Your task to perform on an android device: turn off location history Image 0: 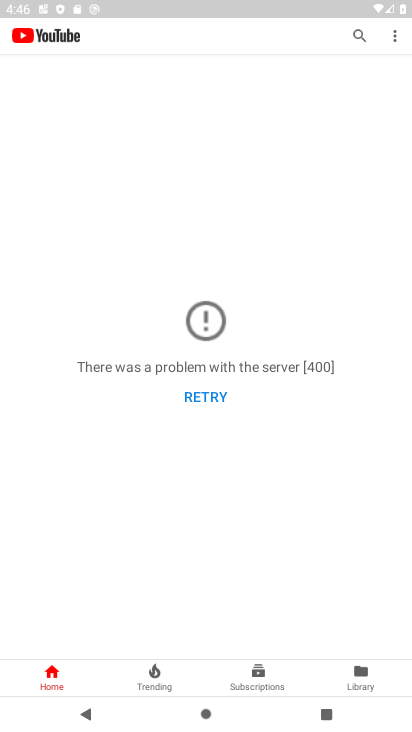
Step 0: press home button
Your task to perform on an android device: turn off location history Image 1: 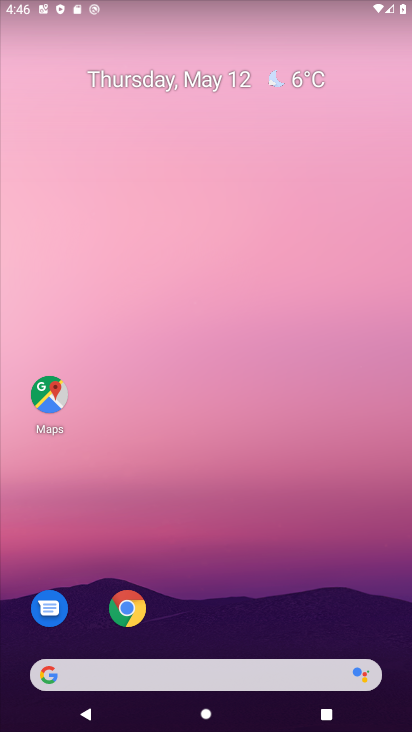
Step 1: drag from (260, 563) to (264, 78)
Your task to perform on an android device: turn off location history Image 2: 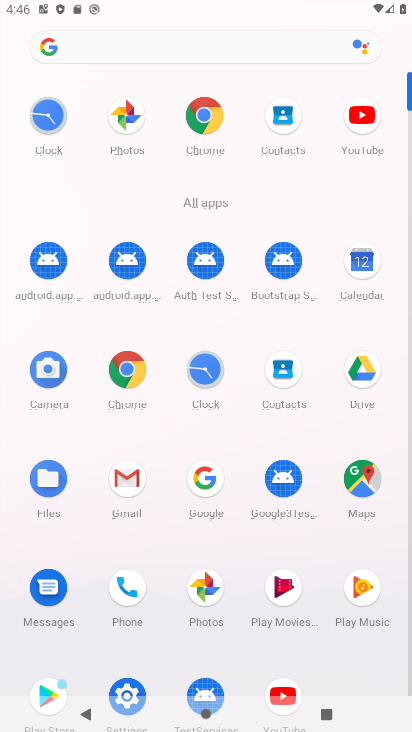
Step 2: click (358, 486)
Your task to perform on an android device: turn off location history Image 3: 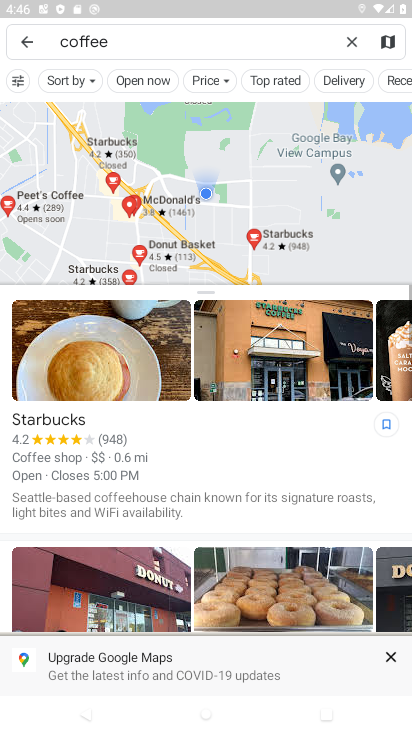
Step 3: click (23, 38)
Your task to perform on an android device: turn off location history Image 4: 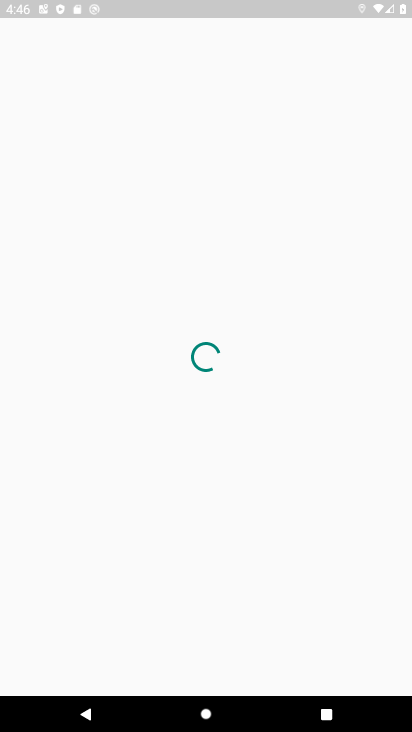
Step 4: drag from (22, 34) to (7, 506)
Your task to perform on an android device: turn off location history Image 5: 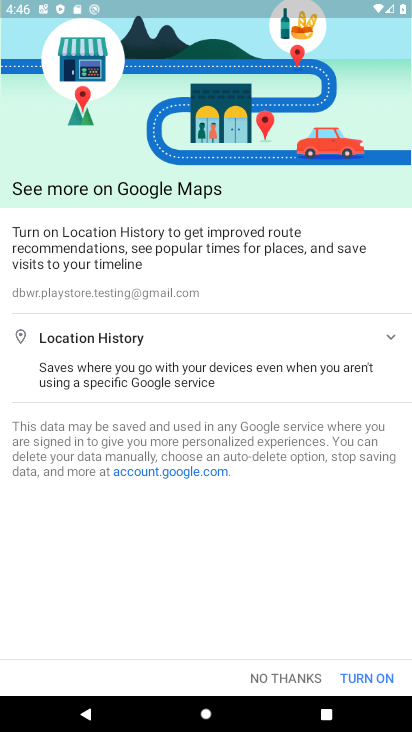
Step 5: click (355, 679)
Your task to perform on an android device: turn off location history Image 6: 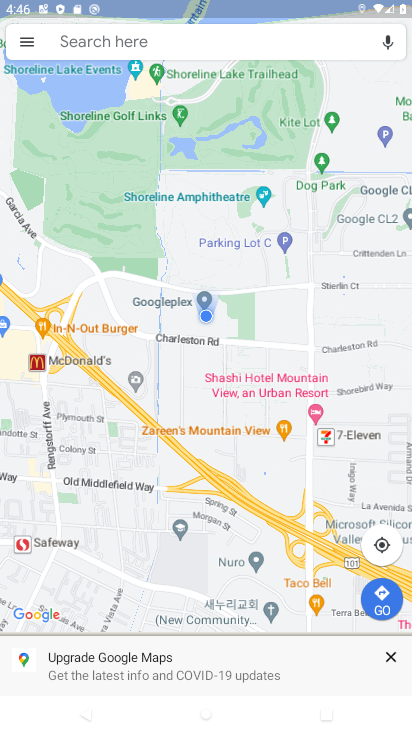
Step 6: click (27, 38)
Your task to perform on an android device: turn off location history Image 7: 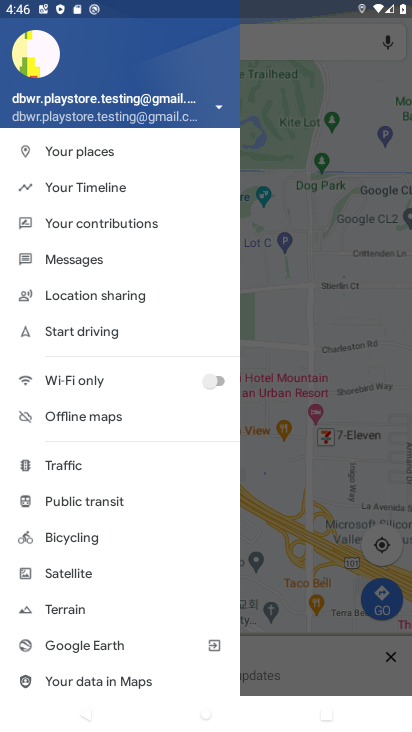
Step 7: click (86, 182)
Your task to perform on an android device: turn off location history Image 8: 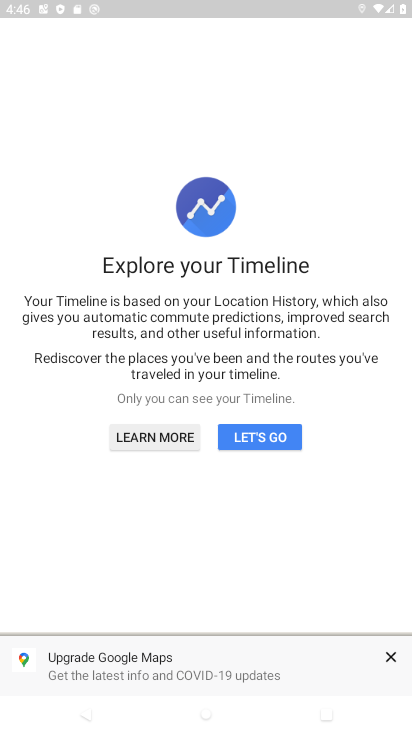
Step 8: click (274, 435)
Your task to perform on an android device: turn off location history Image 9: 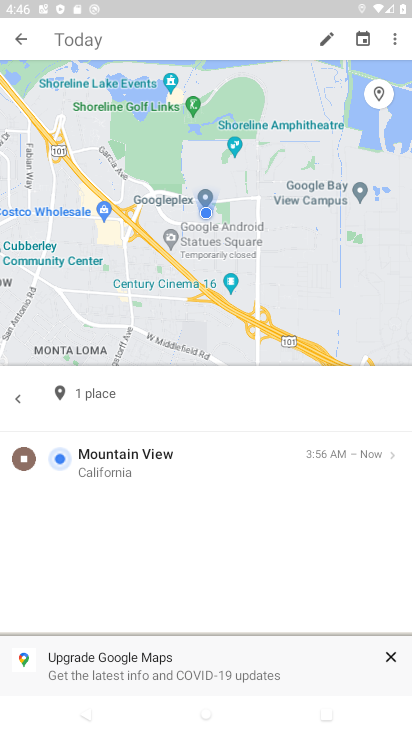
Step 9: click (388, 40)
Your task to perform on an android device: turn off location history Image 10: 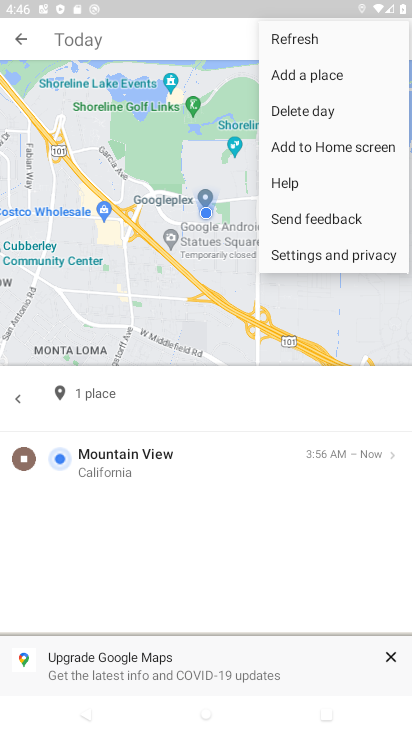
Step 10: click (300, 256)
Your task to perform on an android device: turn off location history Image 11: 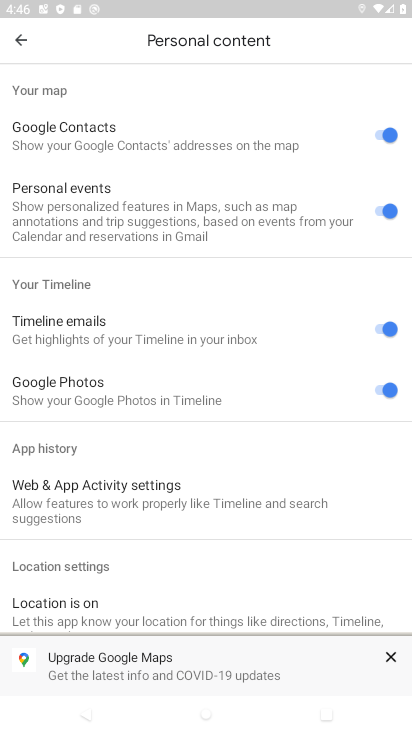
Step 11: drag from (156, 582) to (146, 177)
Your task to perform on an android device: turn off location history Image 12: 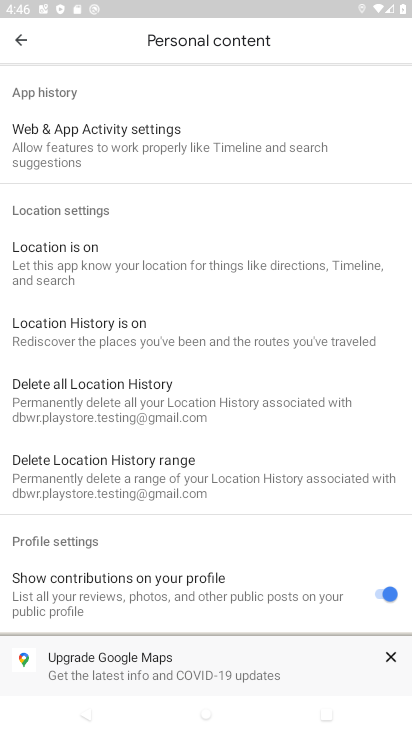
Step 12: click (67, 331)
Your task to perform on an android device: turn off location history Image 13: 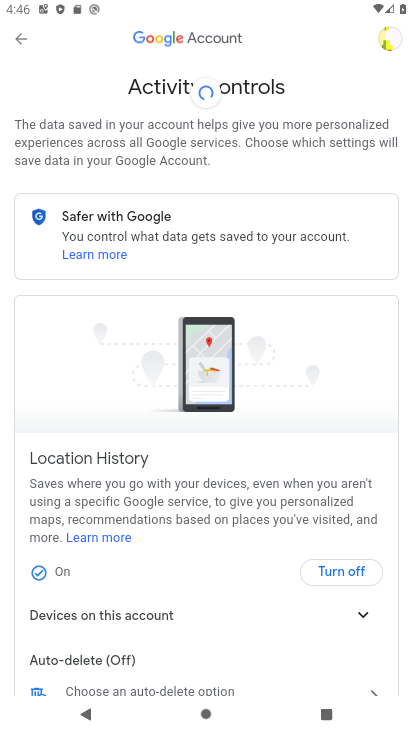
Step 13: click (343, 572)
Your task to perform on an android device: turn off location history Image 14: 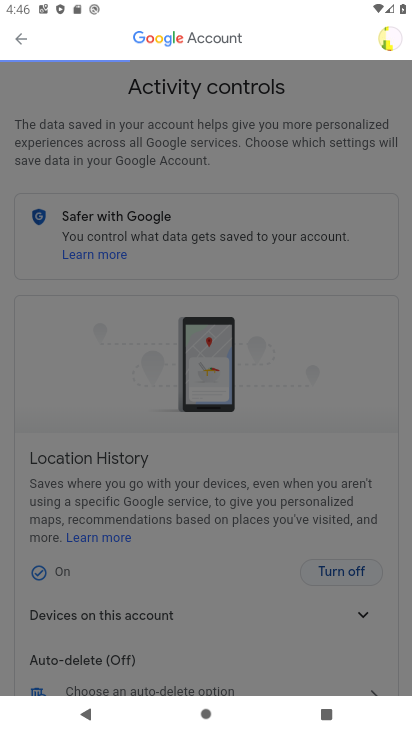
Step 14: click (343, 572)
Your task to perform on an android device: turn off location history Image 15: 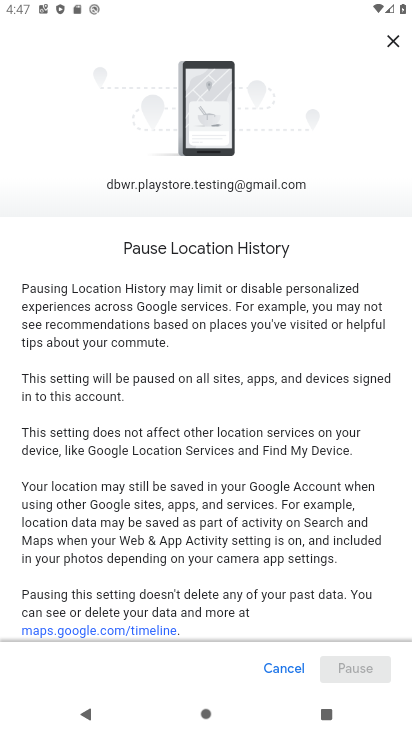
Step 15: drag from (325, 578) to (313, 198)
Your task to perform on an android device: turn off location history Image 16: 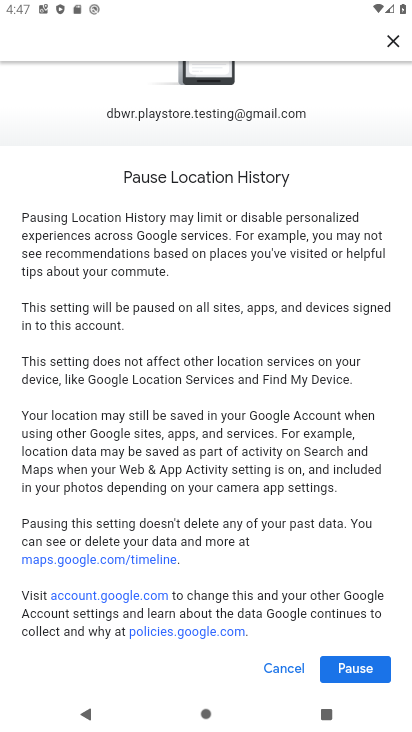
Step 16: click (359, 668)
Your task to perform on an android device: turn off location history Image 17: 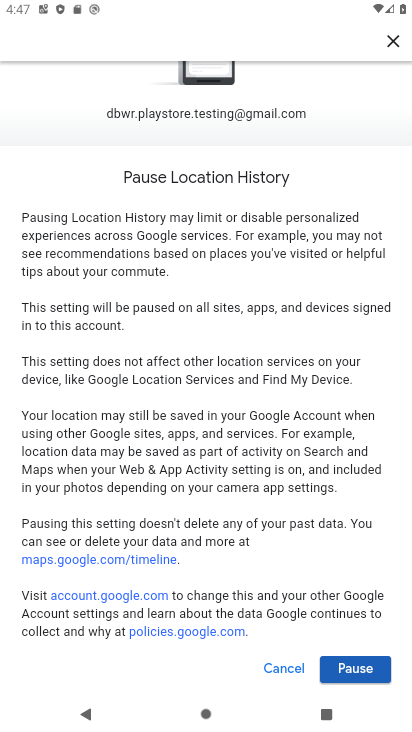
Step 17: click (374, 665)
Your task to perform on an android device: turn off location history Image 18: 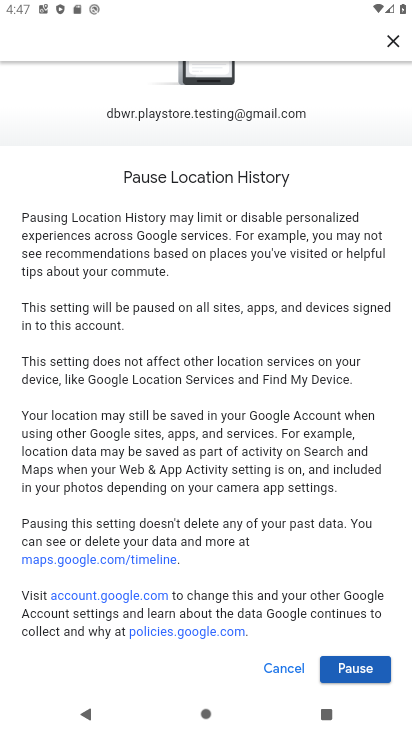
Step 18: click (352, 671)
Your task to perform on an android device: turn off location history Image 19: 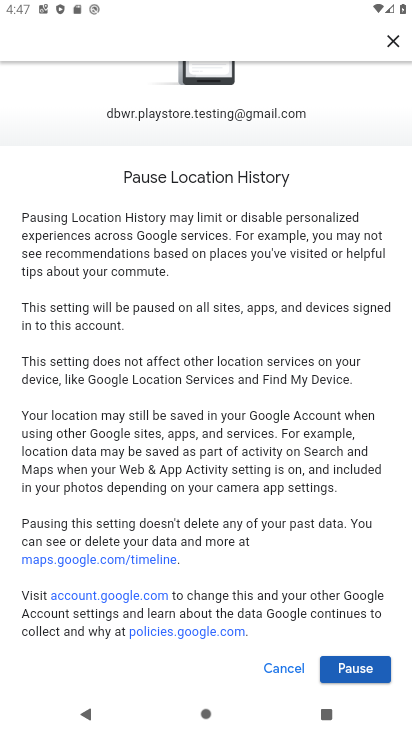
Step 19: drag from (316, 604) to (333, 319)
Your task to perform on an android device: turn off location history Image 20: 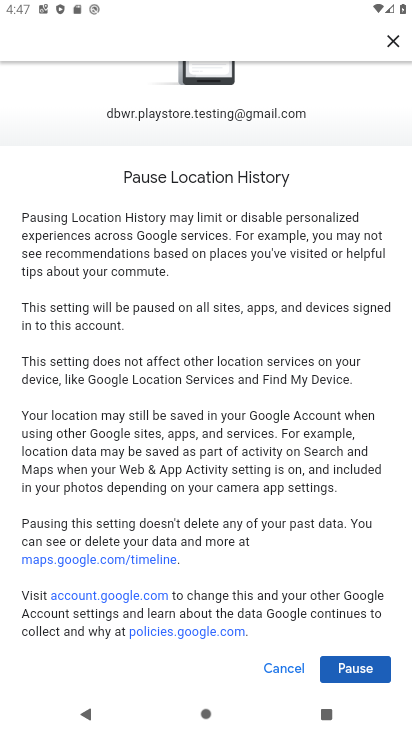
Step 20: click (360, 668)
Your task to perform on an android device: turn off location history Image 21: 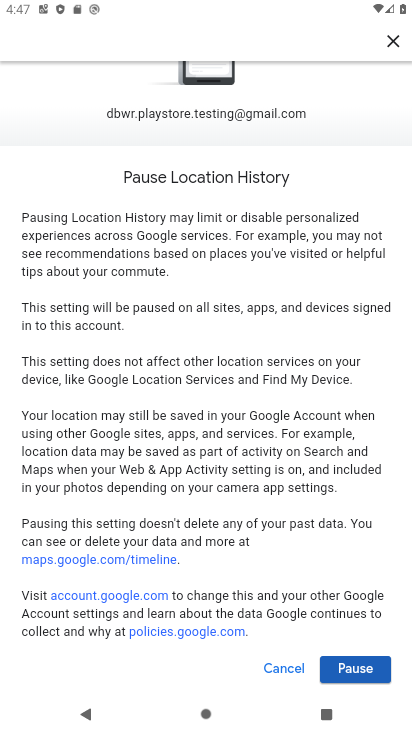
Step 21: click (374, 667)
Your task to perform on an android device: turn off location history Image 22: 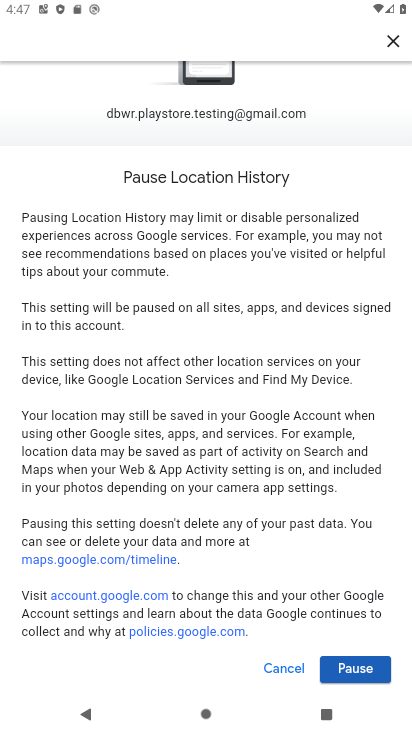
Step 22: click (374, 667)
Your task to perform on an android device: turn off location history Image 23: 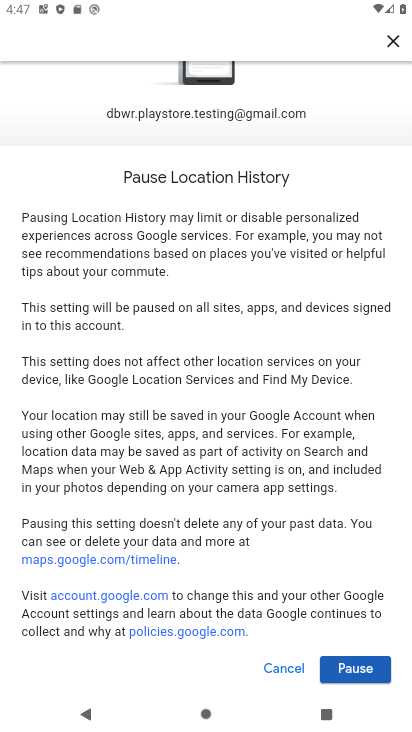
Step 23: click (374, 667)
Your task to perform on an android device: turn off location history Image 24: 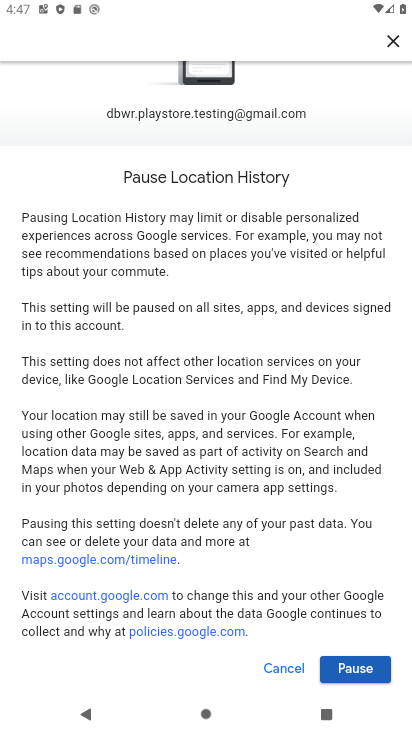
Step 24: click (356, 671)
Your task to perform on an android device: turn off location history Image 25: 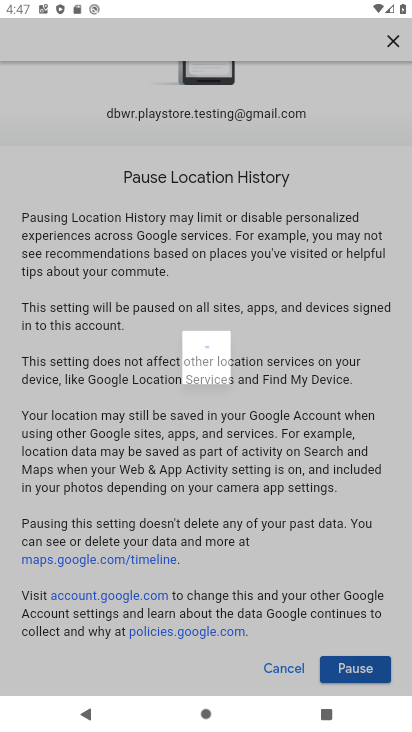
Step 25: click (356, 671)
Your task to perform on an android device: turn off location history Image 26: 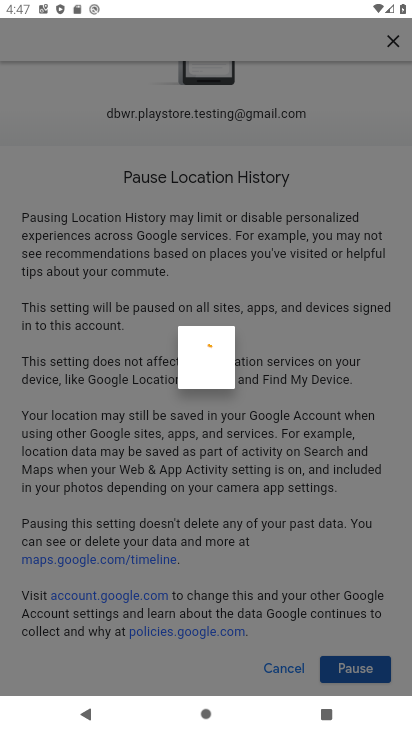
Step 26: click (356, 671)
Your task to perform on an android device: turn off location history Image 27: 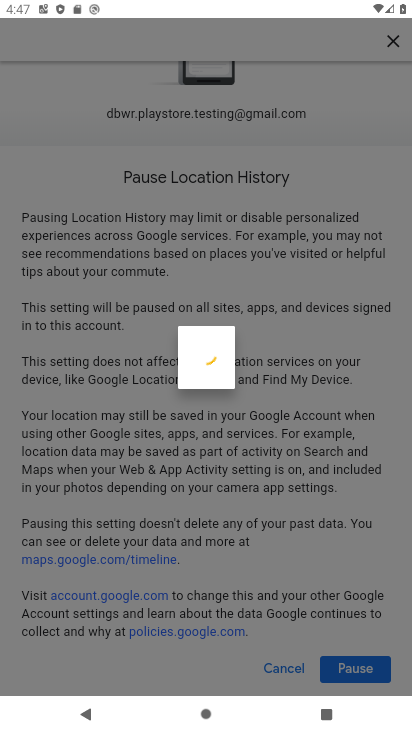
Step 27: click (356, 671)
Your task to perform on an android device: turn off location history Image 28: 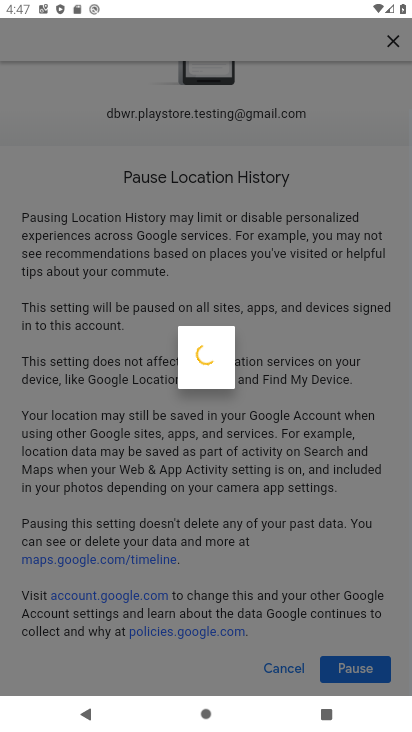
Step 28: click (356, 671)
Your task to perform on an android device: turn off location history Image 29: 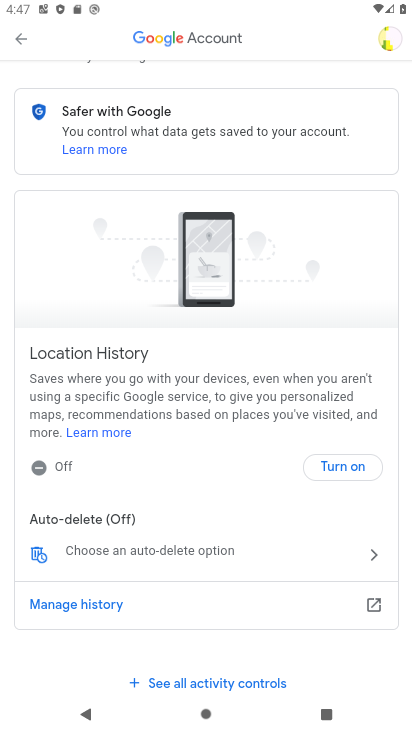
Step 29: task complete